Your task to perform on an android device: Add "logitech g903" to the cart on amazon.com, then select checkout. Image 0: 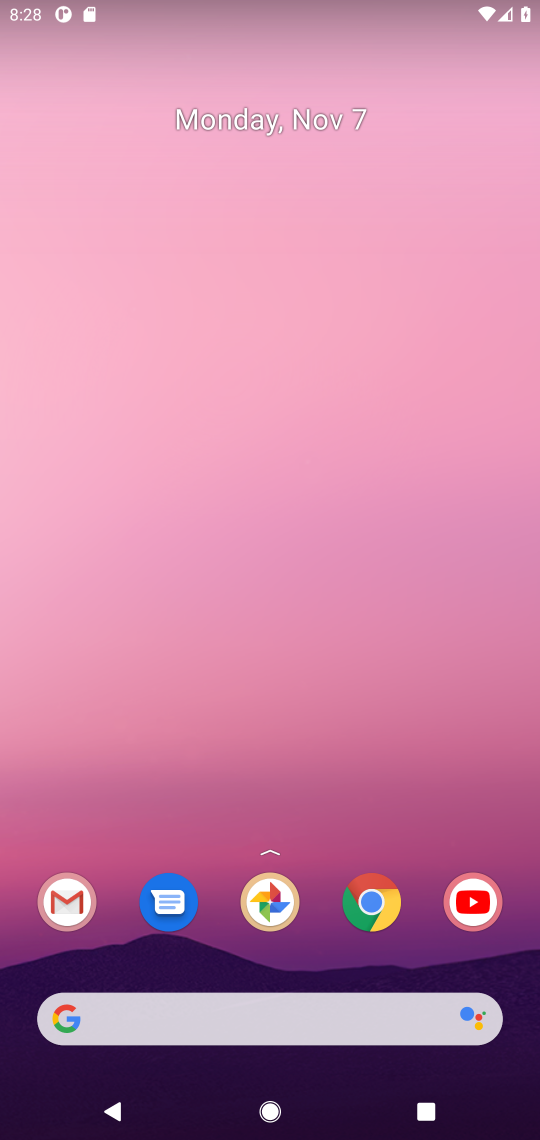
Step 0: click (381, 912)
Your task to perform on an android device: Add "logitech g903" to the cart on amazon.com, then select checkout. Image 1: 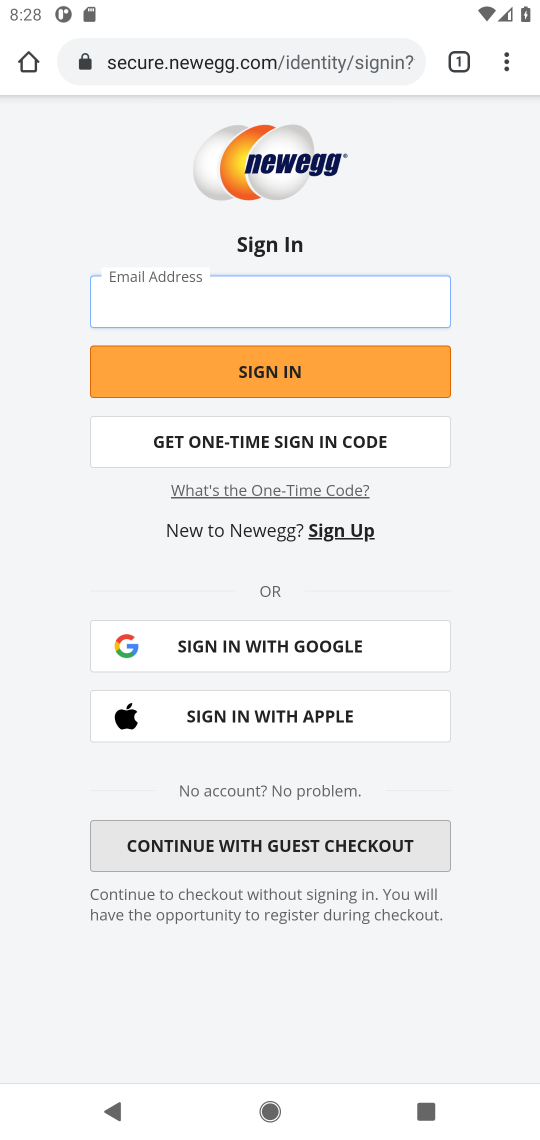
Step 1: click (206, 70)
Your task to perform on an android device: Add "logitech g903" to the cart on amazon.com, then select checkout. Image 2: 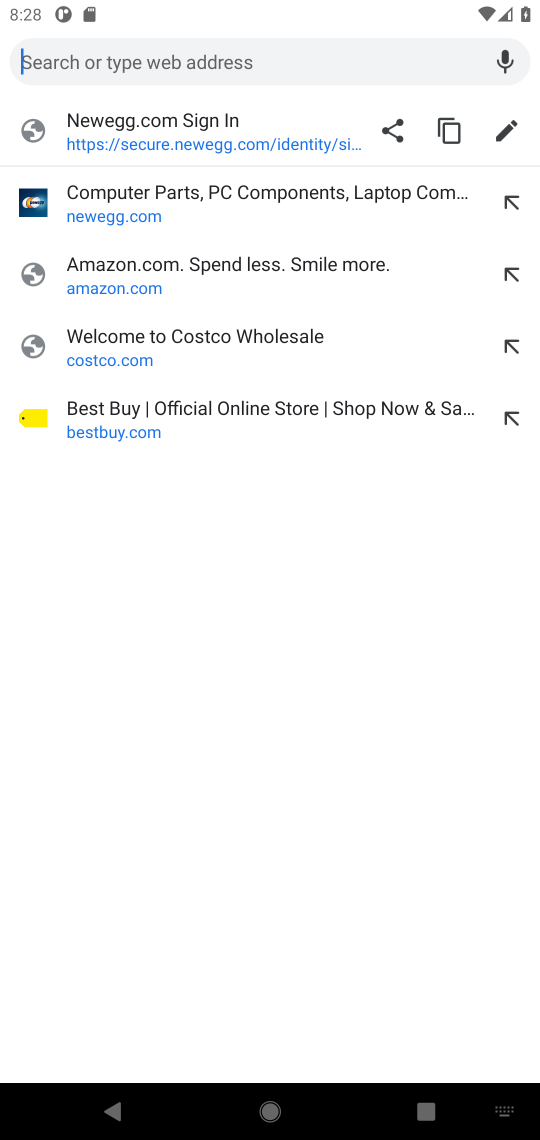
Step 2: click (120, 282)
Your task to perform on an android device: Add "logitech g903" to the cart on amazon.com, then select checkout. Image 3: 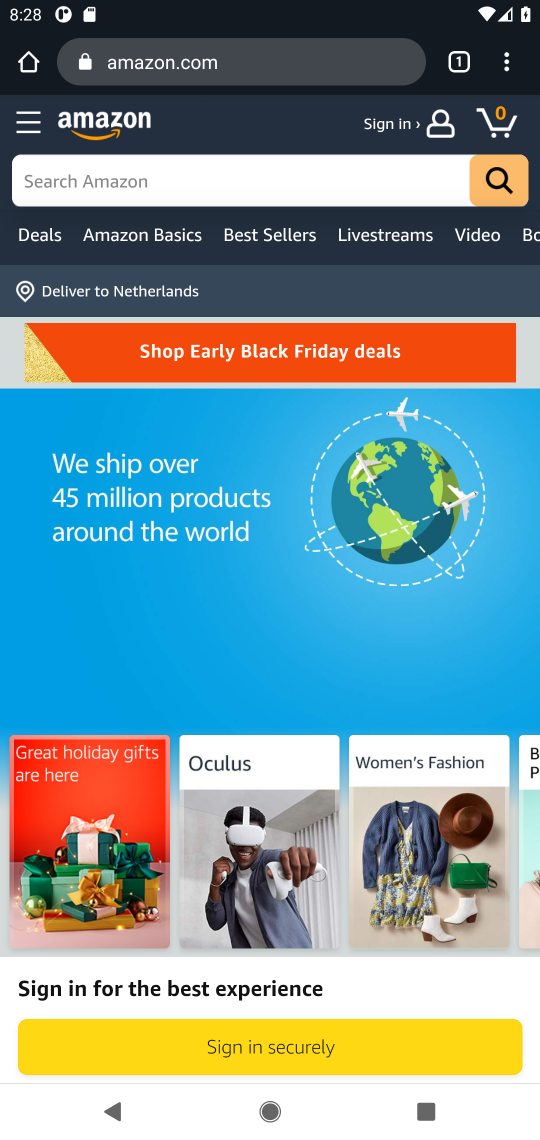
Step 3: click (204, 185)
Your task to perform on an android device: Add "logitech g903" to the cart on amazon.com, then select checkout. Image 4: 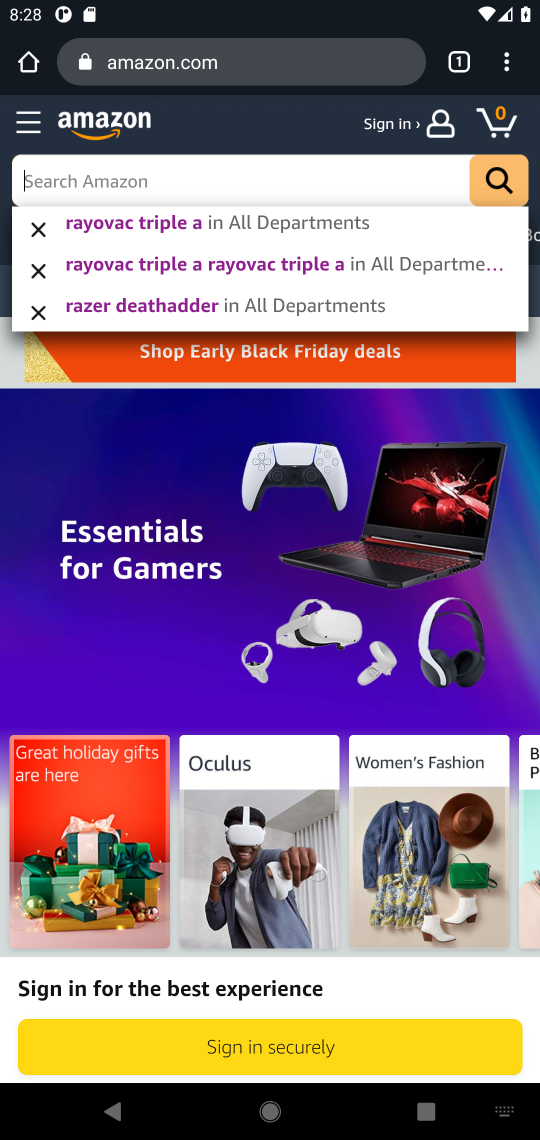
Step 4: type "logitech g903"
Your task to perform on an android device: Add "logitech g903" to the cart on amazon.com, then select checkout. Image 5: 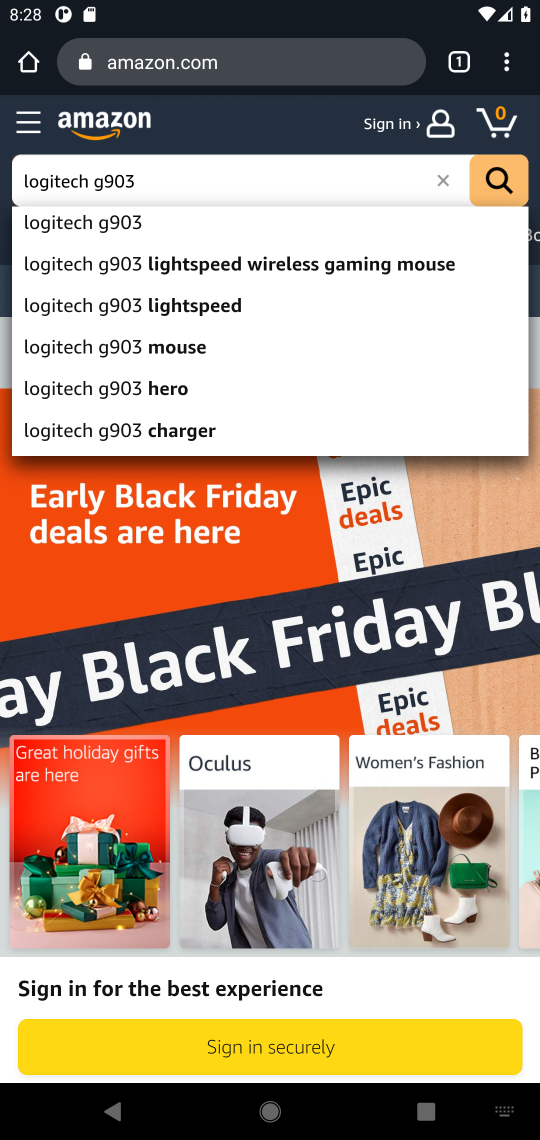
Step 5: click (125, 224)
Your task to perform on an android device: Add "logitech g903" to the cart on amazon.com, then select checkout. Image 6: 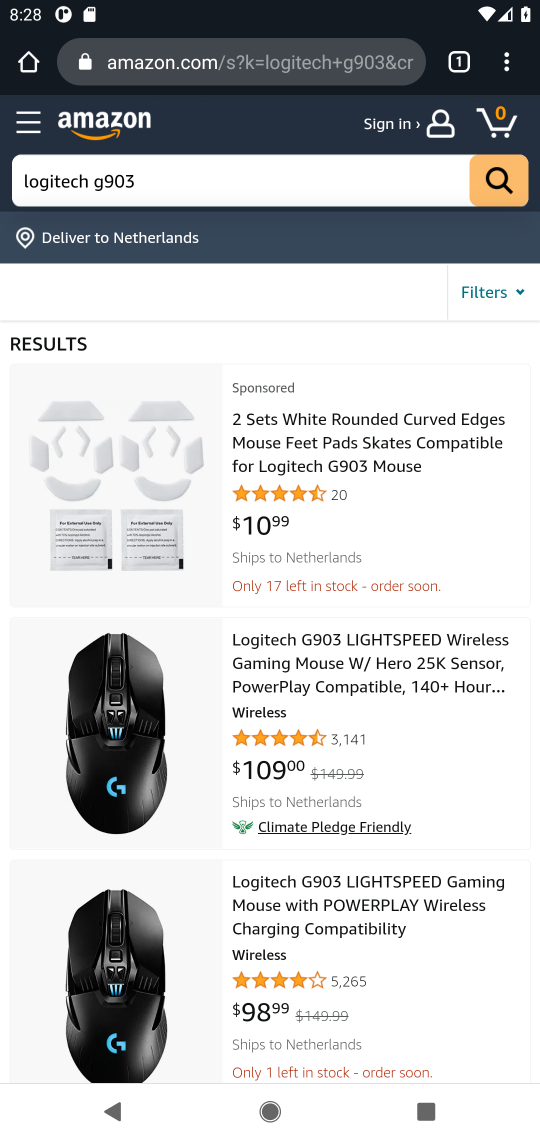
Step 6: click (230, 697)
Your task to perform on an android device: Add "logitech g903" to the cart on amazon.com, then select checkout. Image 7: 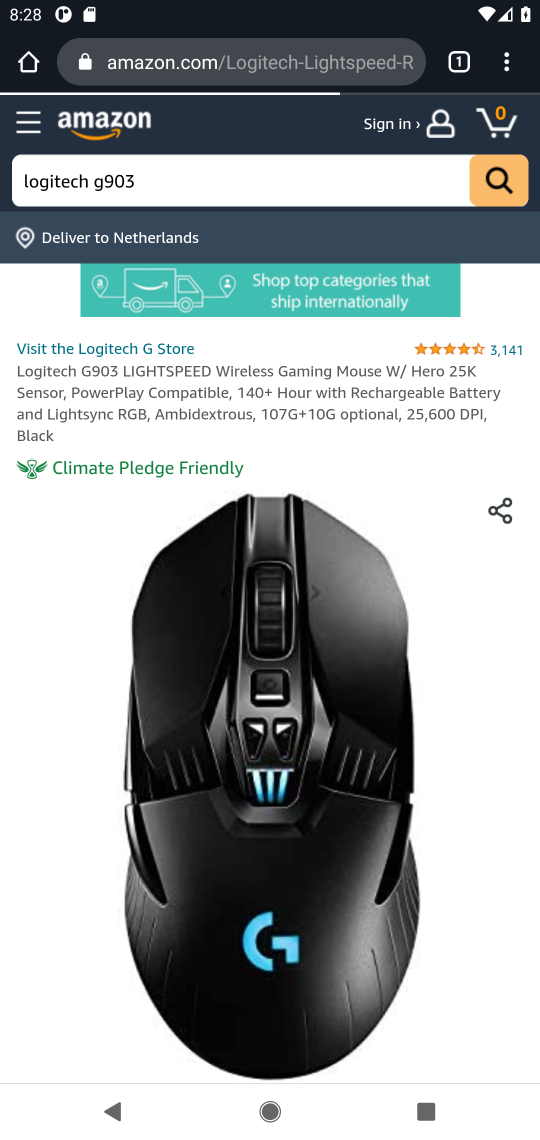
Step 7: drag from (251, 873) to (278, 297)
Your task to perform on an android device: Add "logitech g903" to the cart on amazon.com, then select checkout. Image 8: 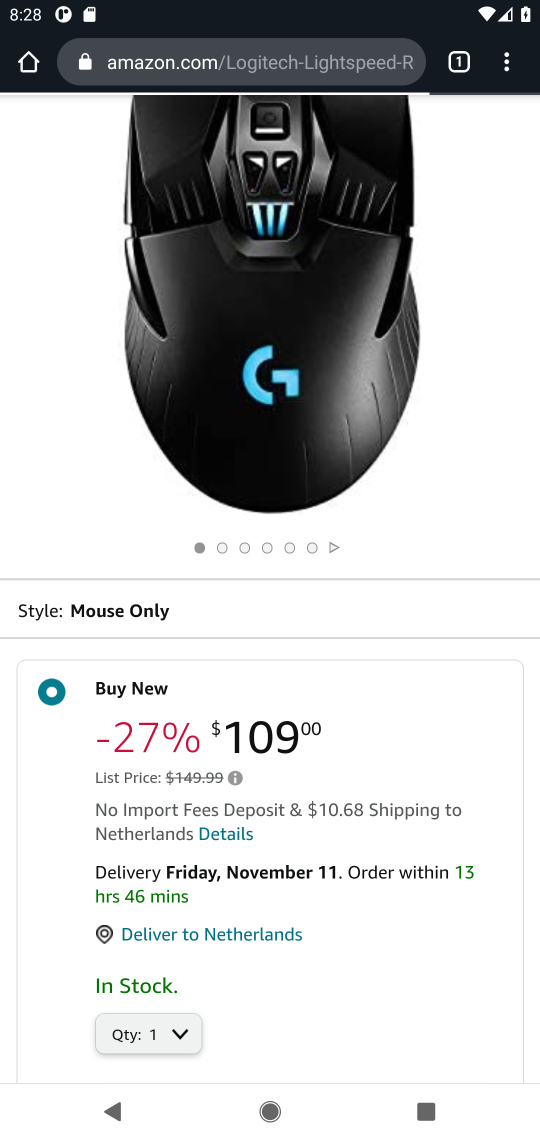
Step 8: drag from (237, 725) to (236, 408)
Your task to perform on an android device: Add "logitech g903" to the cart on amazon.com, then select checkout. Image 9: 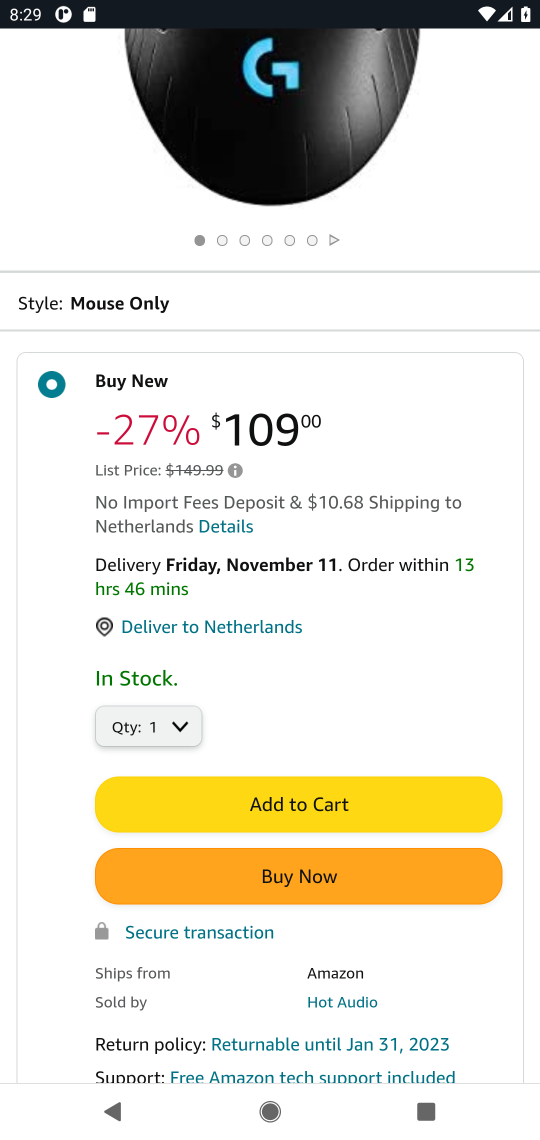
Step 9: click (215, 798)
Your task to perform on an android device: Add "logitech g903" to the cart on amazon.com, then select checkout. Image 10: 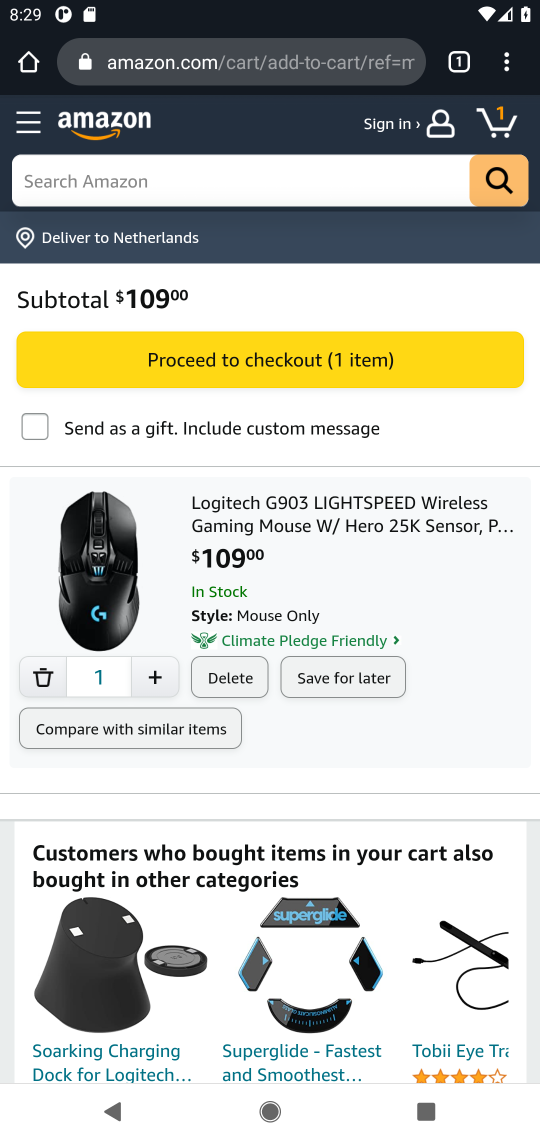
Step 10: click (249, 359)
Your task to perform on an android device: Add "logitech g903" to the cart on amazon.com, then select checkout. Image 11: 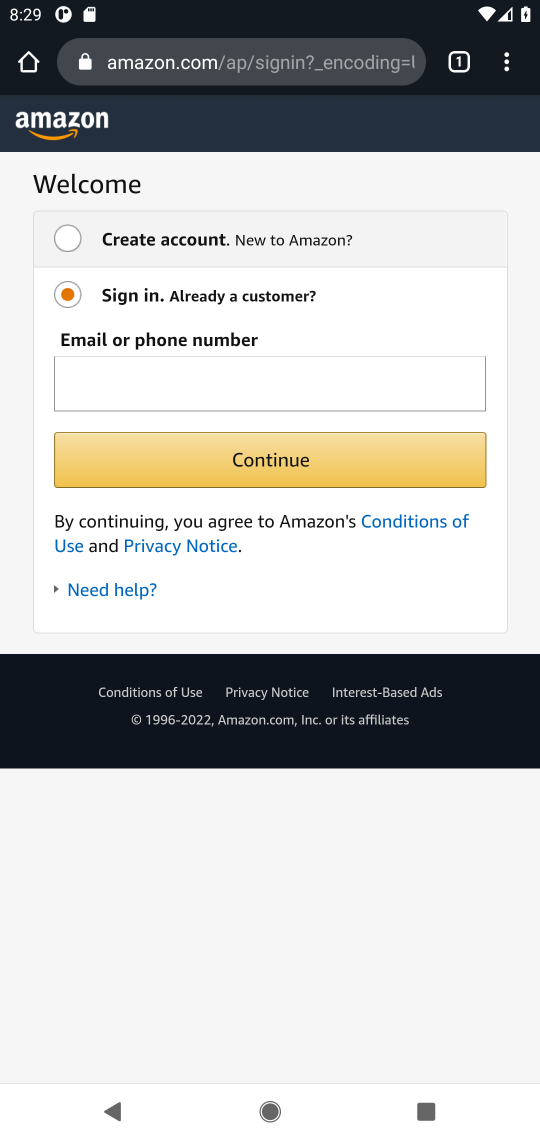
Step 11: task complete